Your task to perform on an android device: What's the weather today? Image 0: 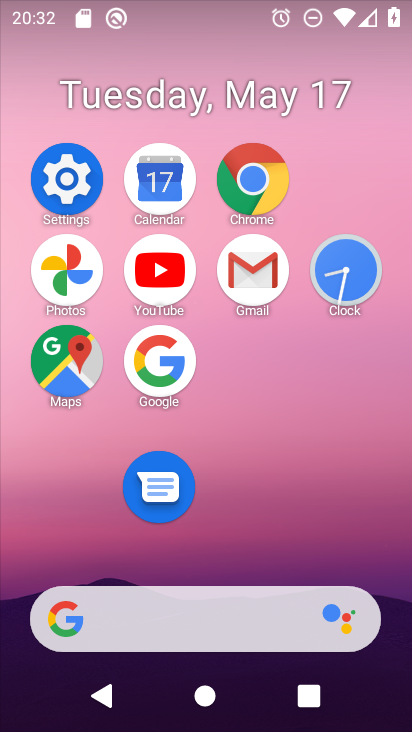
Step 0: click (158, 358)
Your task to perform on an android device: What's the weather today? Image 1: 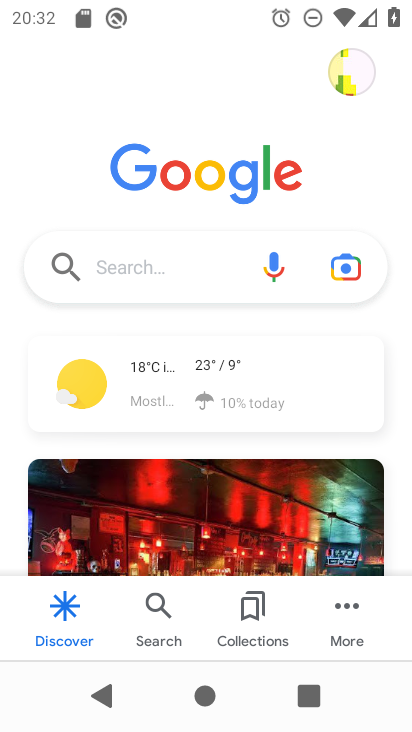
Step 1: click (94, 368)
Your task to perform on an android device: What's the weather today? Image 2: 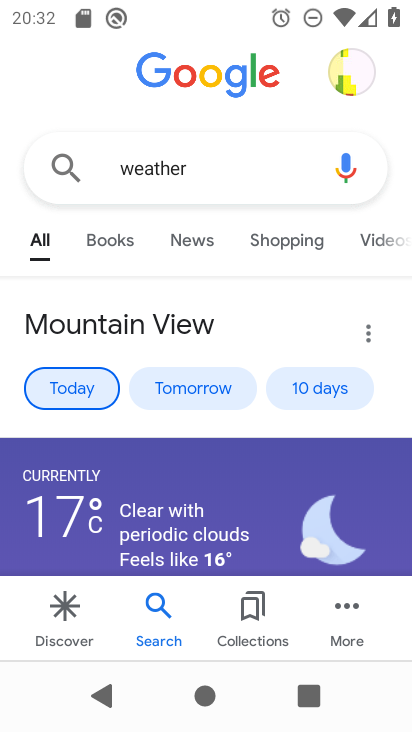
Step 2: task complete